Your task to perform on an android device: change the clock display to analog Image 0: 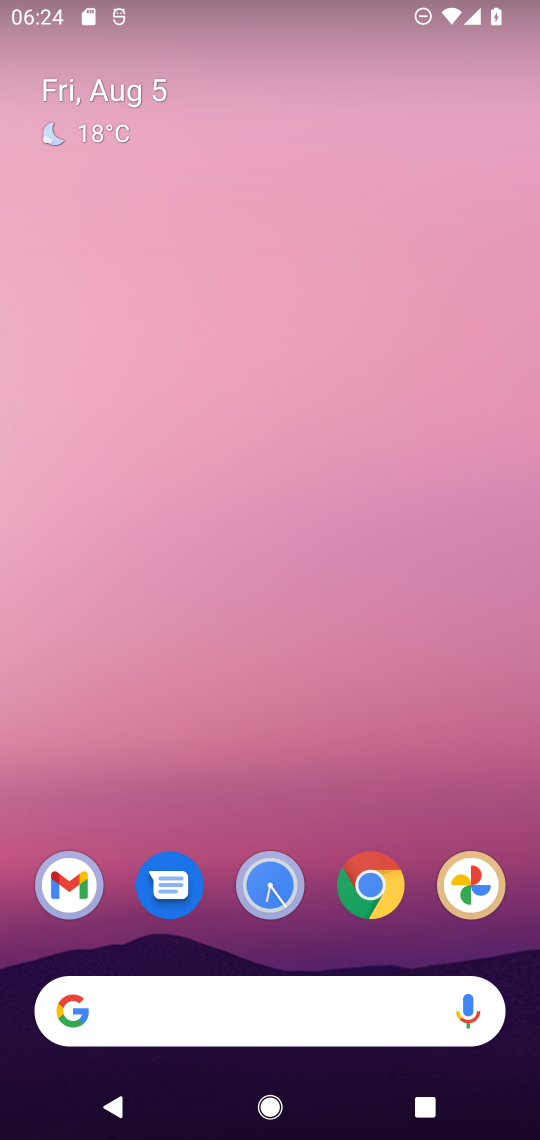
Step 0: drag from (312, 923) to (314, 0)
Your task to perform on an android device: change the clock display to analog Image 1: 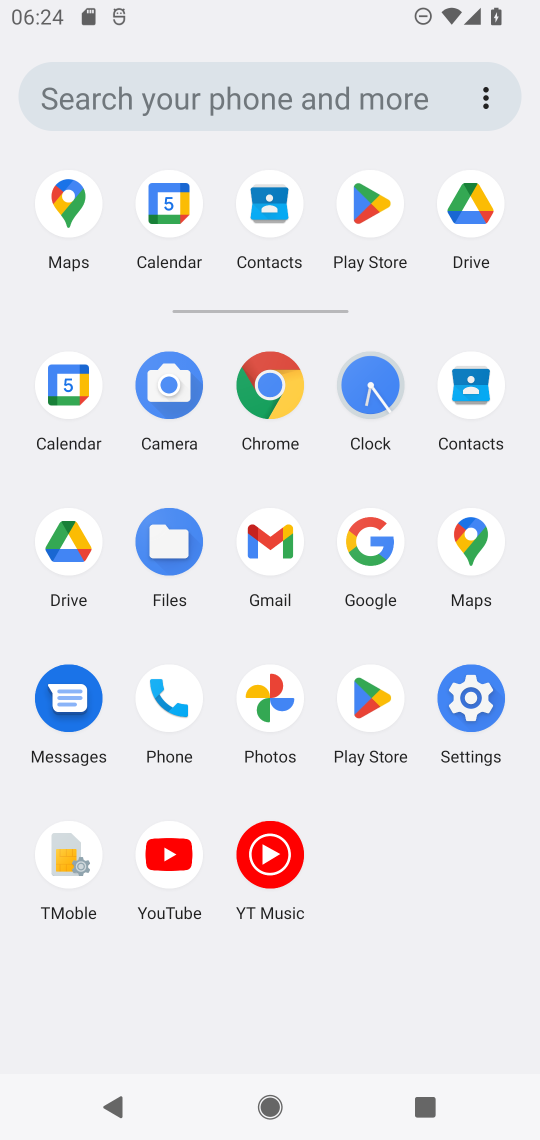
Step 1: click (369, 386)
Your task to perform on an android device: change the clock display to analog Image 2: 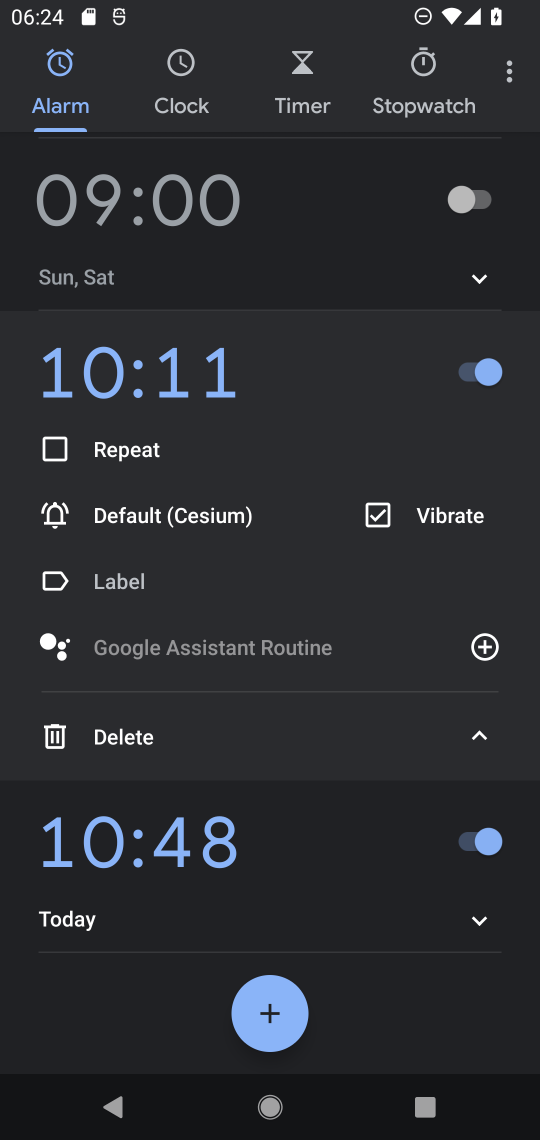
Step 2: click (509, 85)
Your task to perform on an android device: change the clock display to analog Image 3: 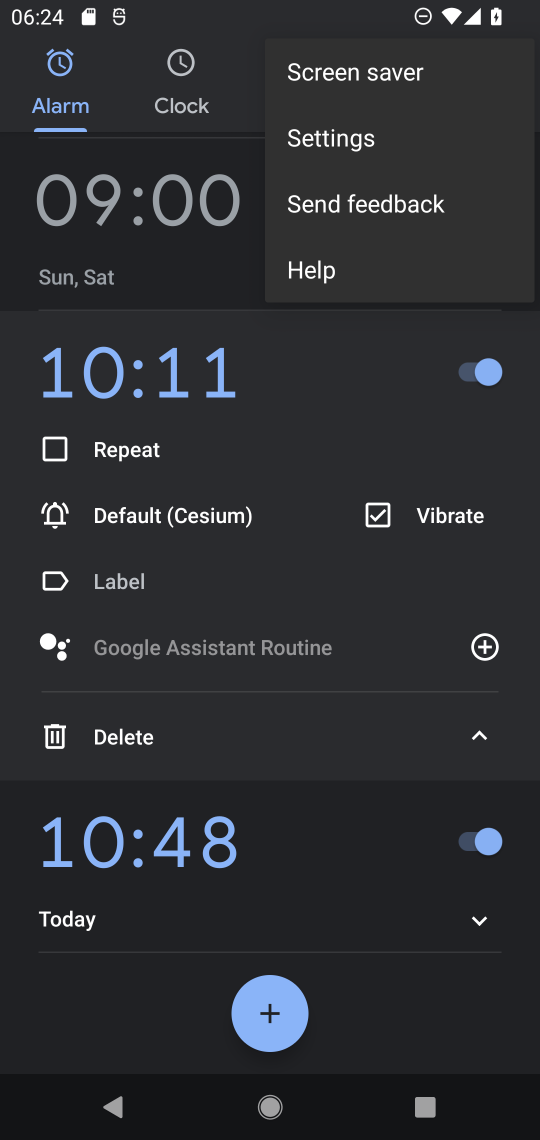
Step 3: click (350, 138)
Your task to perform on an android device: change the clock display to analog Image 4: 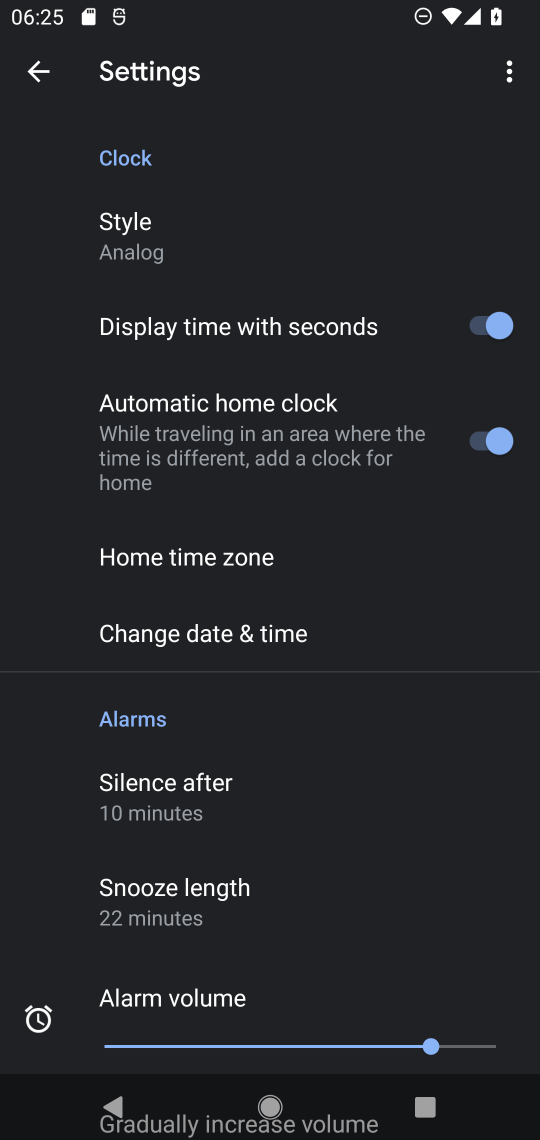
Step 4: click (350, 138)
Your task to perform on an android device: change the clock display to analog Image 5: 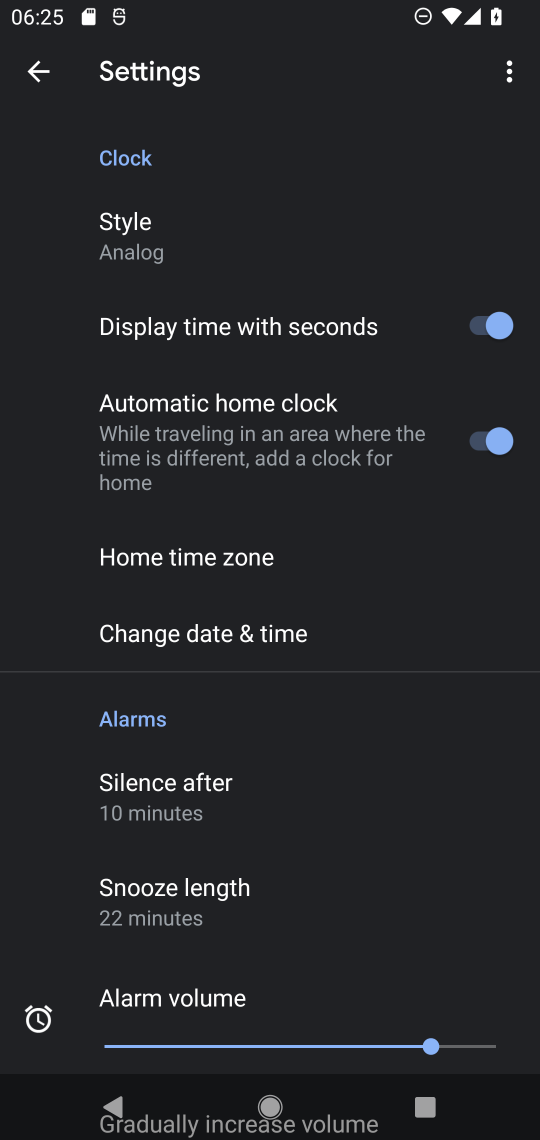
Step 5: task complete